Your task to perform on an android device: set default search engine in the chrome app Image 0: 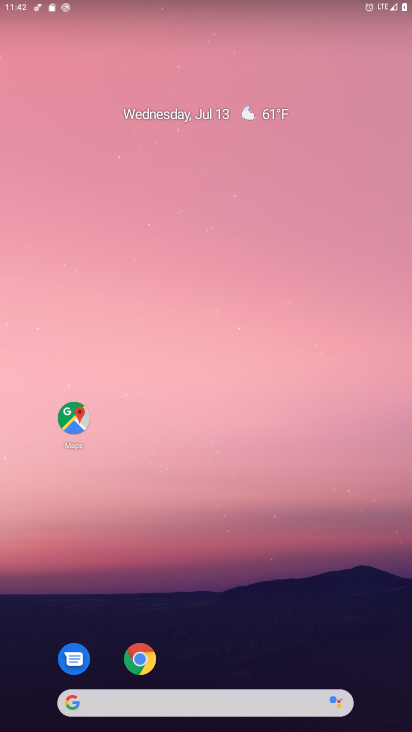
Step 0: press home button
Your task to perform on an android device: set default search engine in the chrome app Image 1: 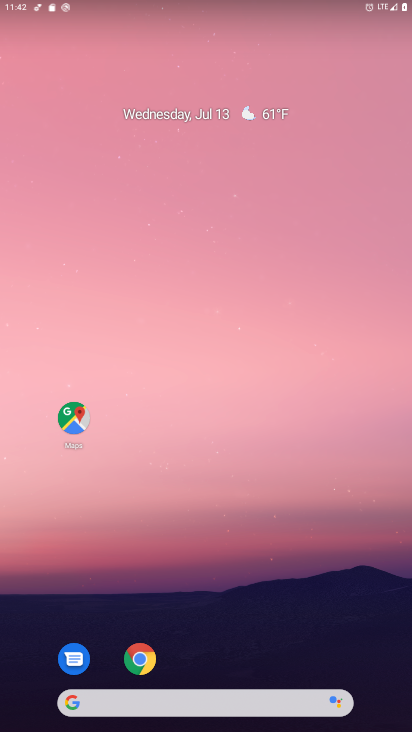
Step 1: click (137, 651)
Your task to perform on an android device: set default search engine in the chrome app Image 2: 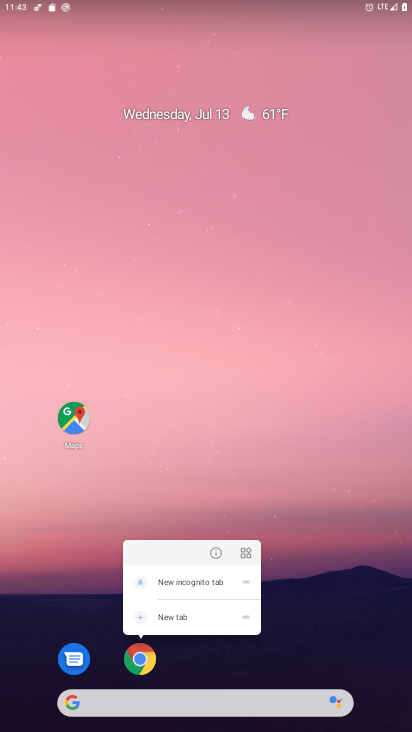
Step 2: click (137, 653)
Your task to perform on an android device: set default search engine in the chrome app Image 3: 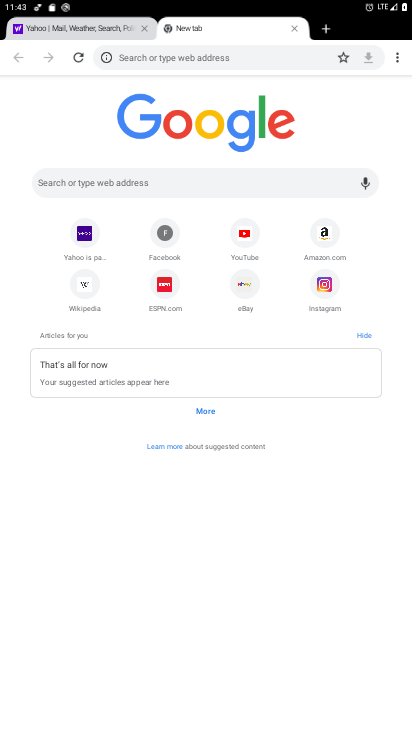
Step 3: click (395, 54)
Your task to perform on an android device: set default search engine in the chrome app Image 4: 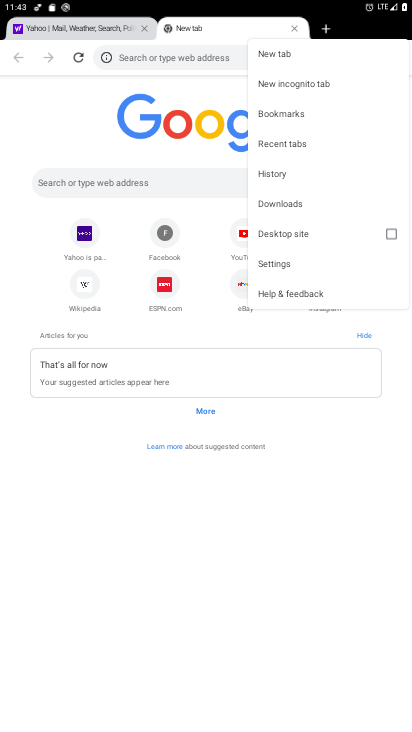
Step 4: click (296, 262)
Your task to perform on an android device: set default search engine in the chrome app Image 5: 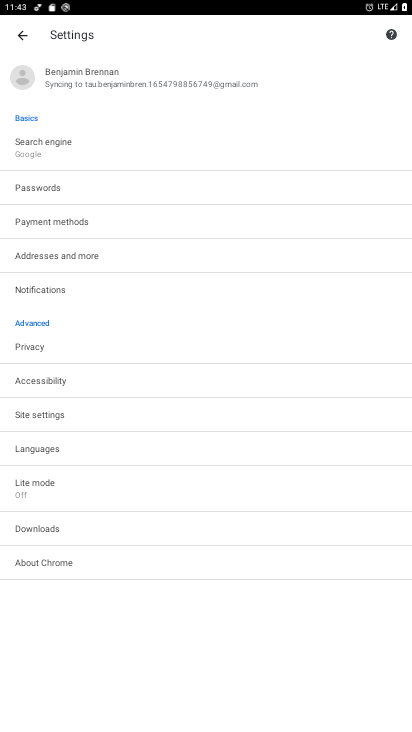
Step 5: click (67, 150)
Your task to perform on an android device: set default search engine in the chrome app Image 6: 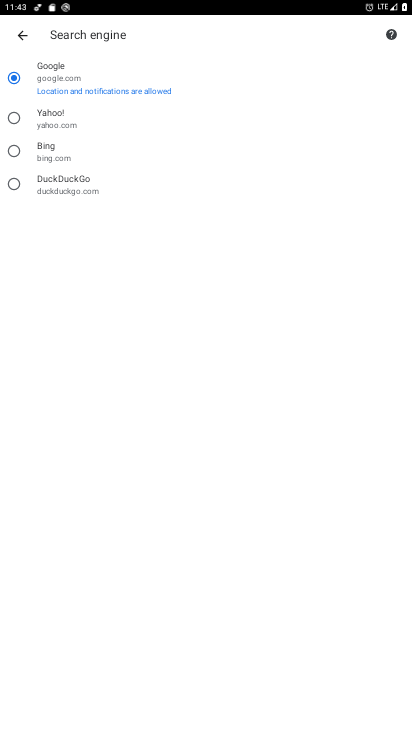
Step 6: click (14, 148)
Your task to perform on an android device: set default search engine in the chrome app Image 7: 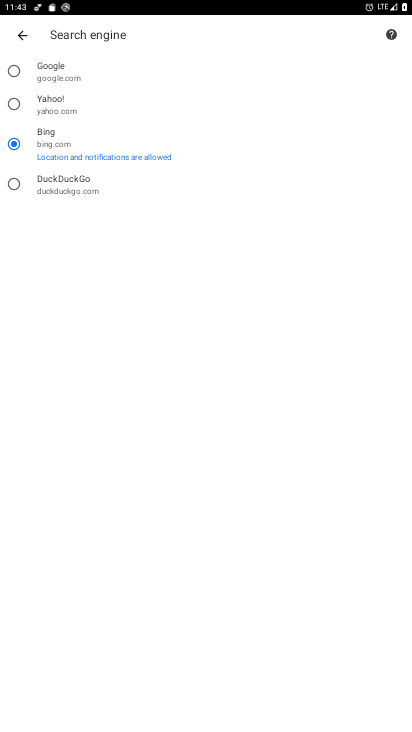
Step 7: task complete